Your task to perform on an android device: turn off notifications settings in the gmail app Image 0: 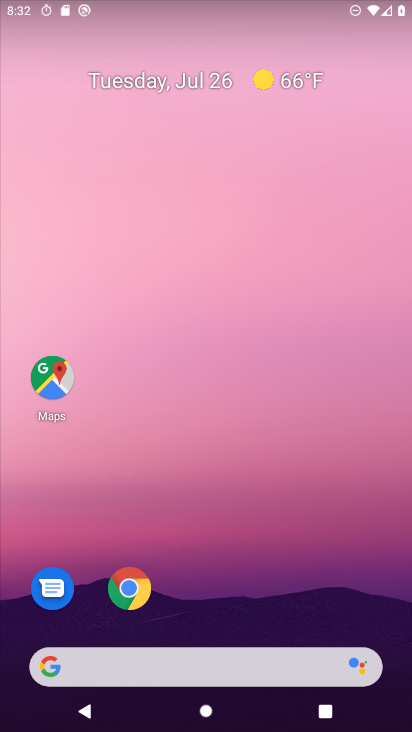
Step 0: drag from (237, 726) to (245, 124)
Your task to perform on an android device: turn off notifications settings in the gmail app Image 1: 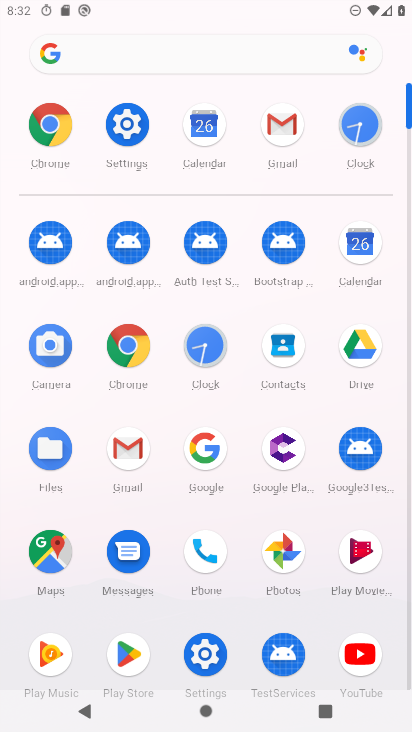
Step 1: click (127, 455)
Your task to perform on an android device: turn off notifications settings in the gmail app Image 2: 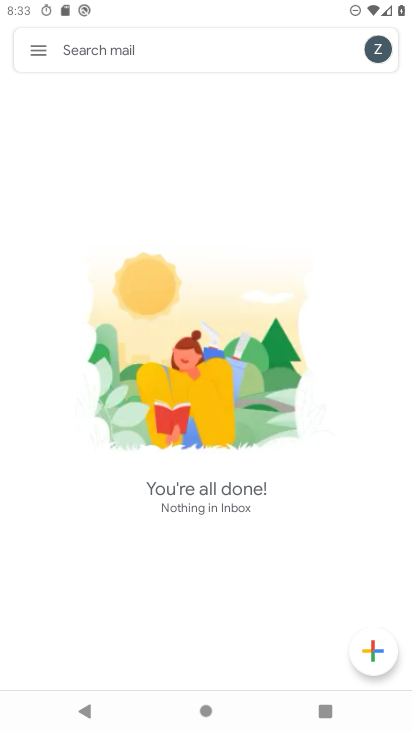
Step 2: click (39, 49)
Your task to perform on an android device: turn off notifications settings in the gmail app Image 3: 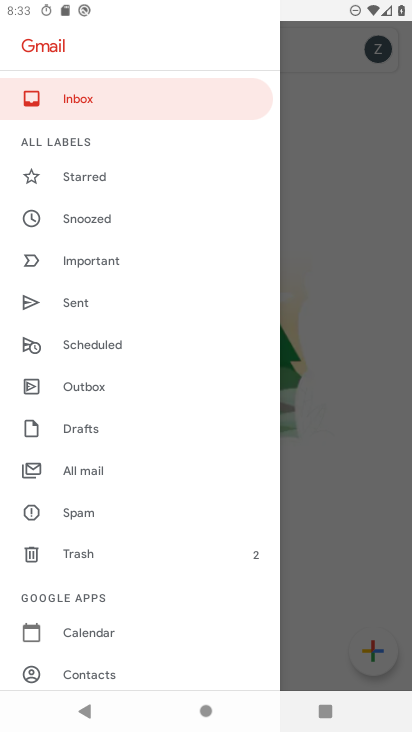
Step 3: drag from (100, 655) to (98, 401)
Your task to perform on an android device: turn off notifications settings in the gmail app Image 4: 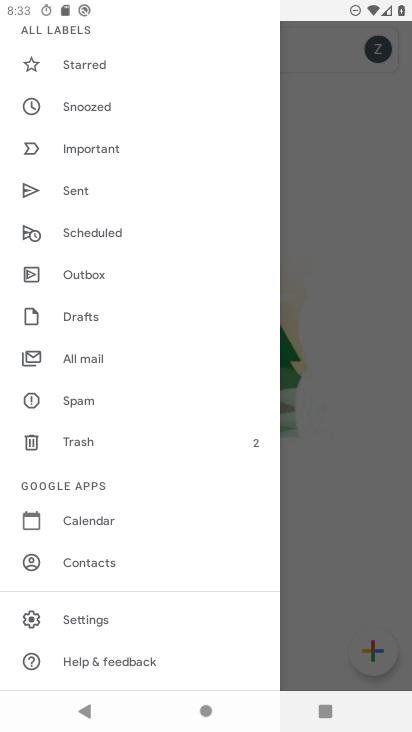
Step 4: click (82, 621)
Your task to perform on an android device: turn off notifications settings in the gmail app Image 5: 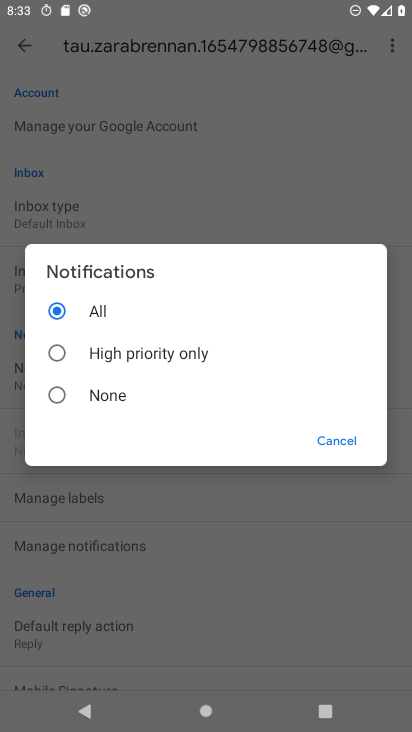
Step 5: click (51, 399)
Your task to perform on an android device: turn off notifications settings in the gmail app Image 6: 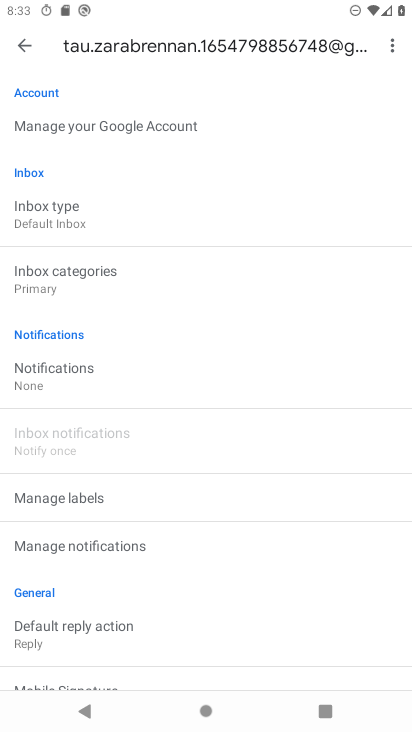
Step 6: task complete